Your task to perform on an android device: See recent photos Image 0: 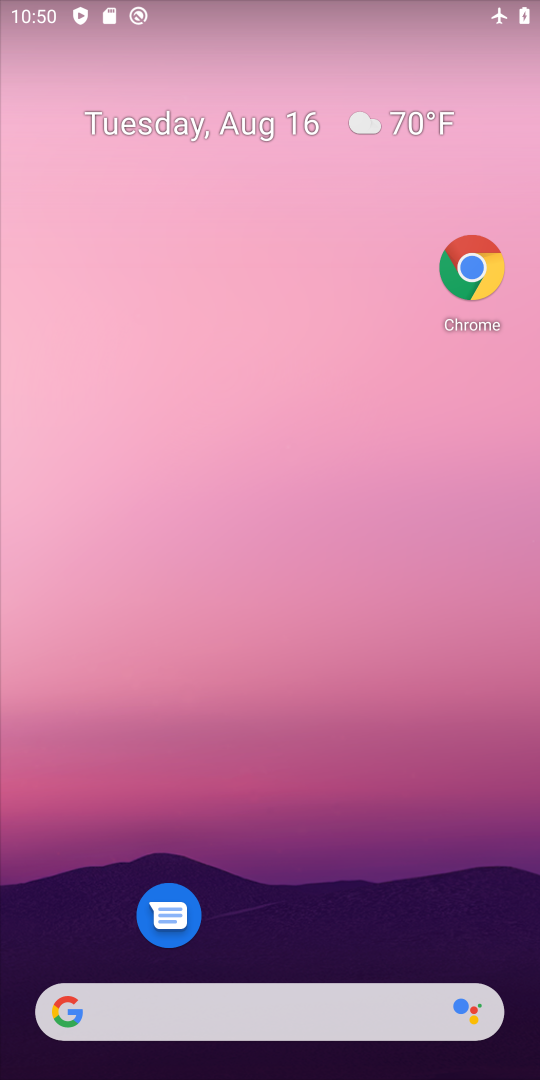
Step 0: drag from (324, 967) to (127, 29)
Your task to perform on an android device: See recent photos Image 1: 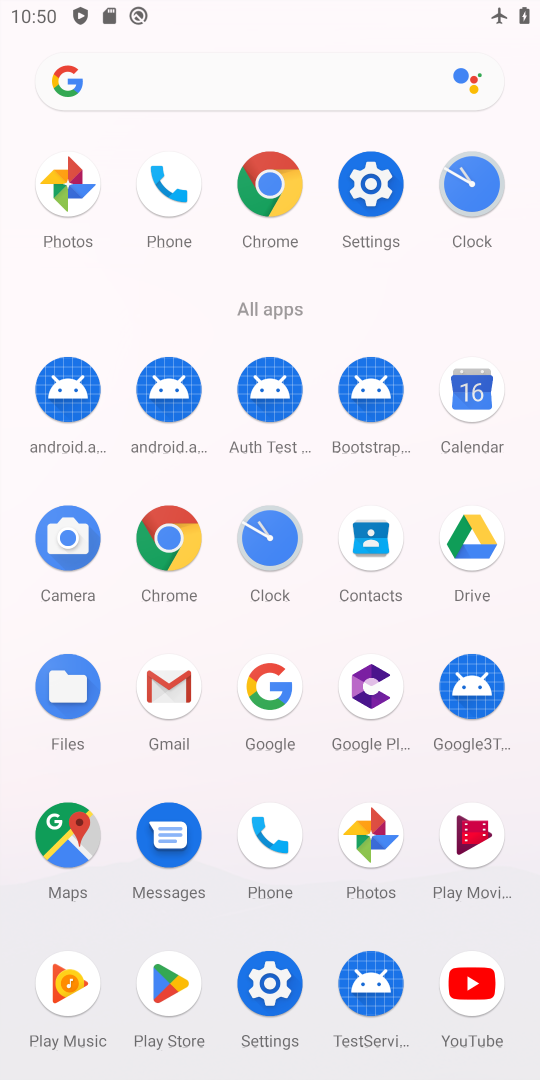
Step 1: click (45, 195)
Your task to perform on an android device: See recent photos Image 2: 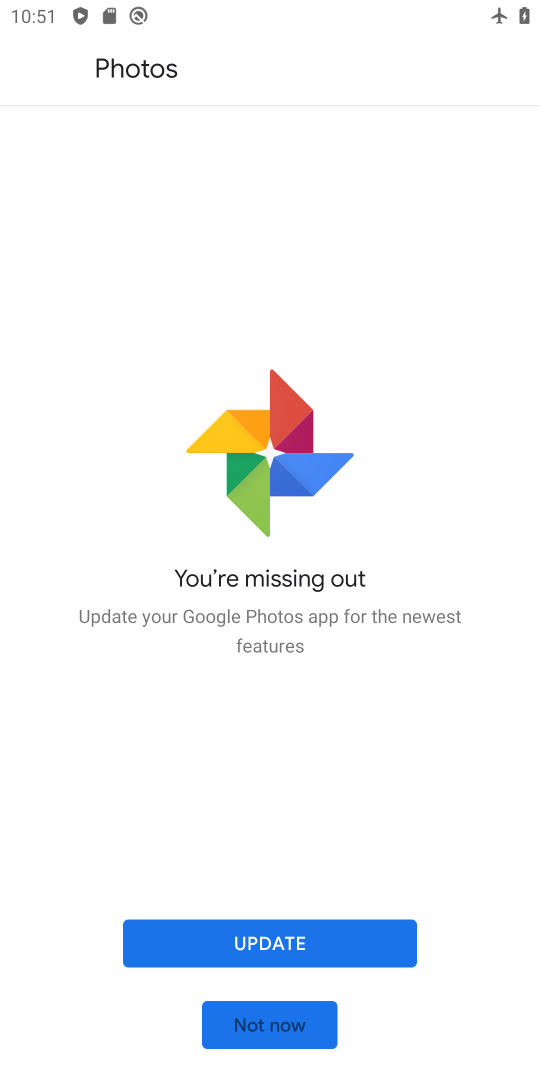
Step 2: click (300, 1046)
Your task to perform on an android device: See recent photos Image 3: 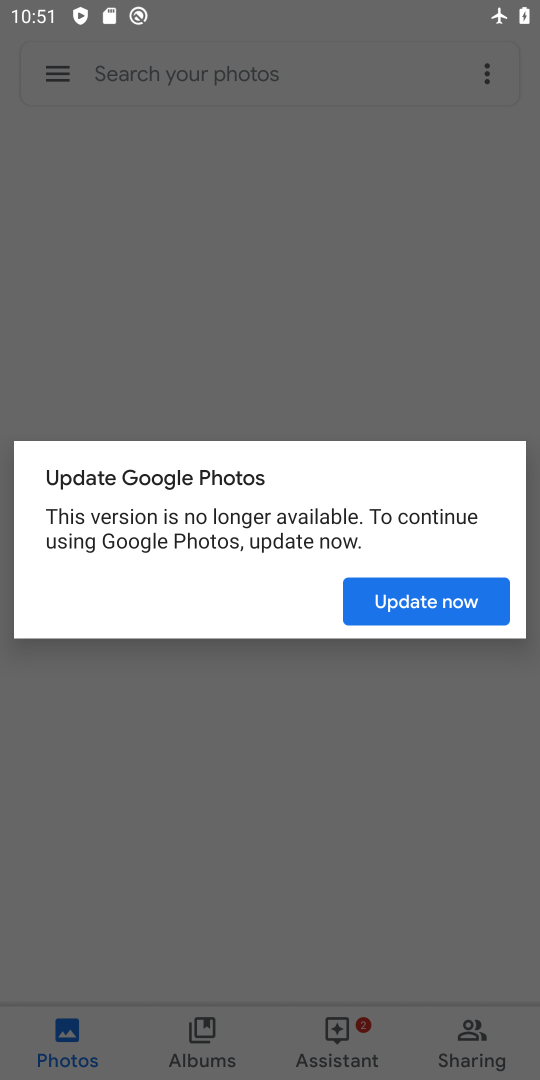
Step 3: click (313, 838)
Your task to perform on an android device: See recent photos Image 4: 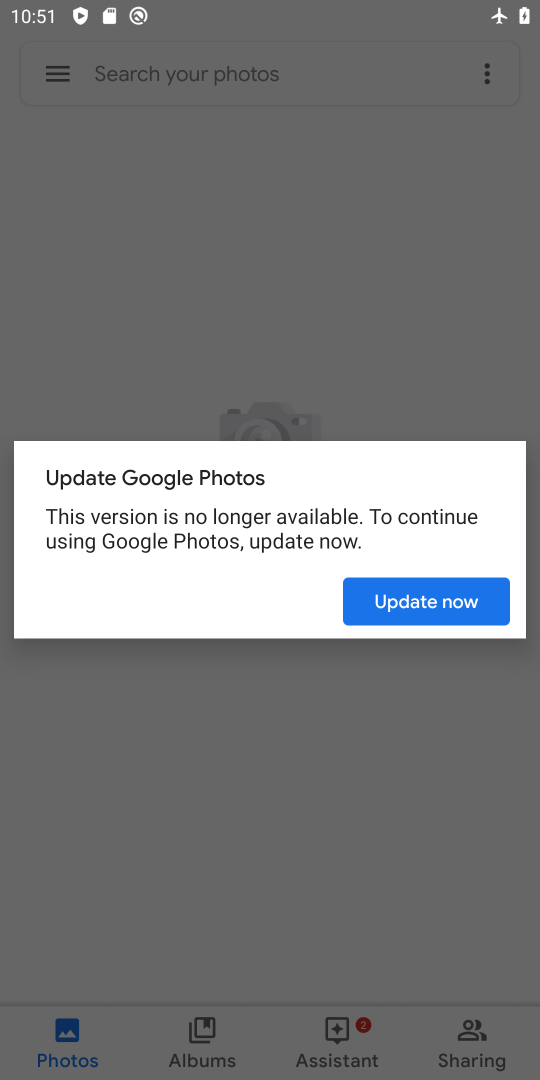
Step 4: task complete